Your task to perform on an android device: What's the weather today? Image 0: 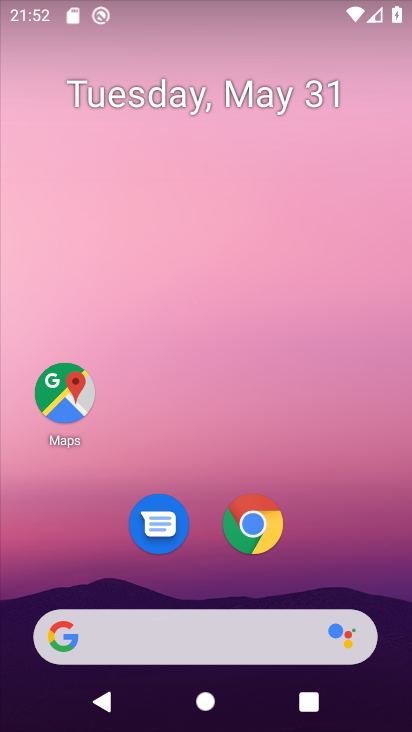
Step 0: click (170, 637)
Your task to perform on an android device: What's the weather today? Image 1: 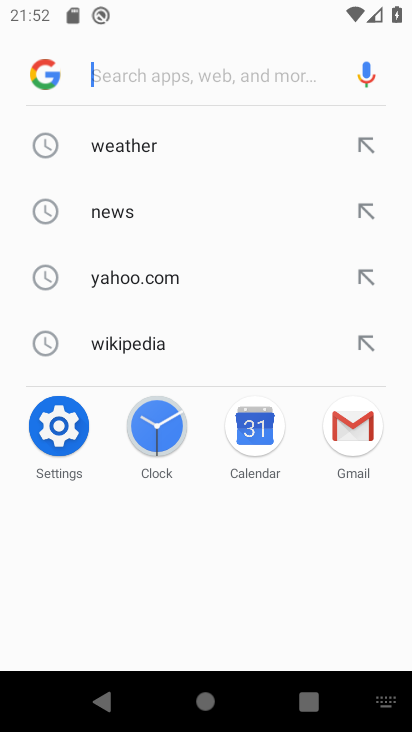
Step 1: click (135, 149)
Your task to perform on an android device: What's the weather today? Image 2: 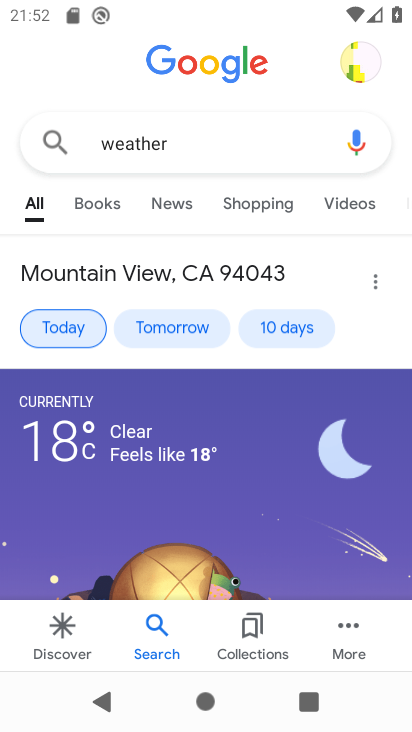
Step 2: click (85, 330)
Your task to perform on an android device: What's the weather today? Image 3: 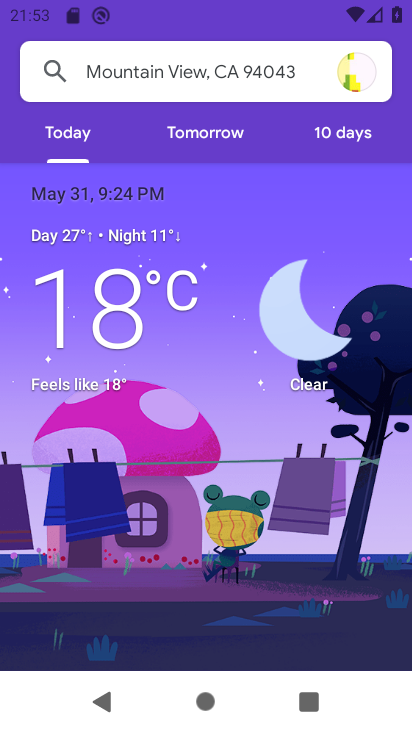
Step 3: task complete